Your task to perform on an android device: Go to Maps Image 0: 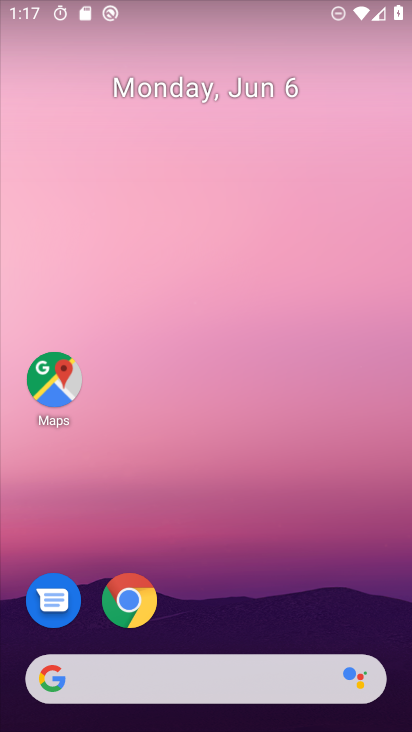
Step 0: click (42, 370)
Your task to perform on an android device: Go to Maps Image 1: 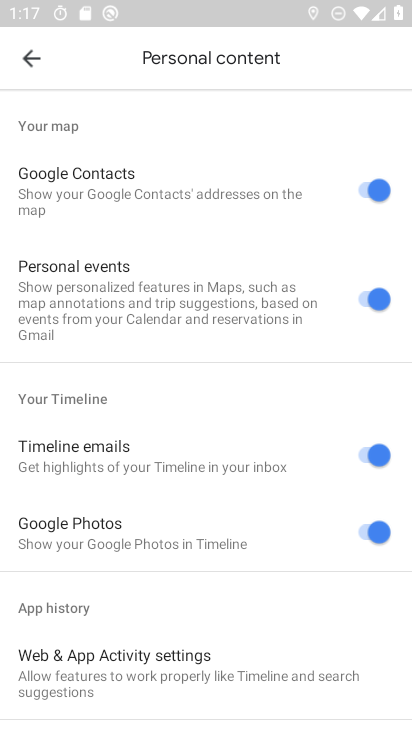
Step 1: click (35, 61)
Your task to perform on an android device: Go to Maps Image 2: 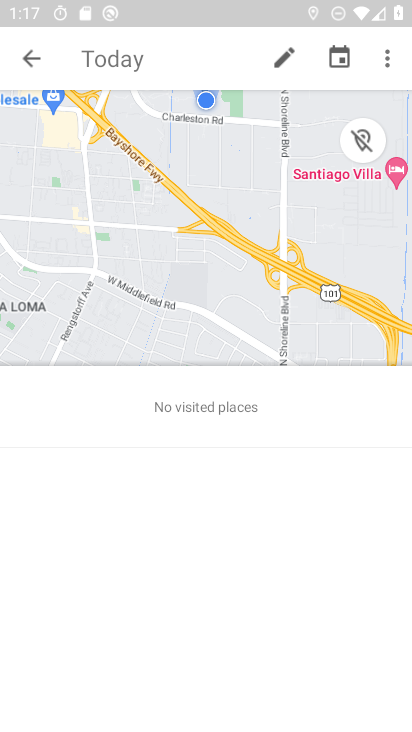
Step 2: task complete